Your task to perform on an android device: Open Google Chrome and click the shortcut for Amazon.com Image 0: 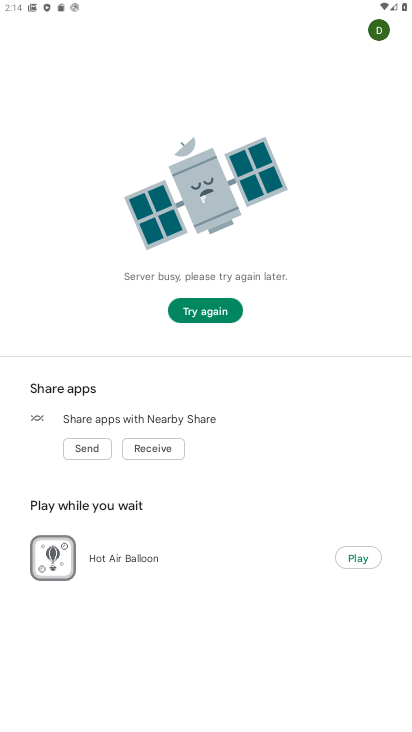
Step 0: press home button
Your task to perform on an android device: Open Google Chrome and click the shortcut for Amazon.com Image 1: 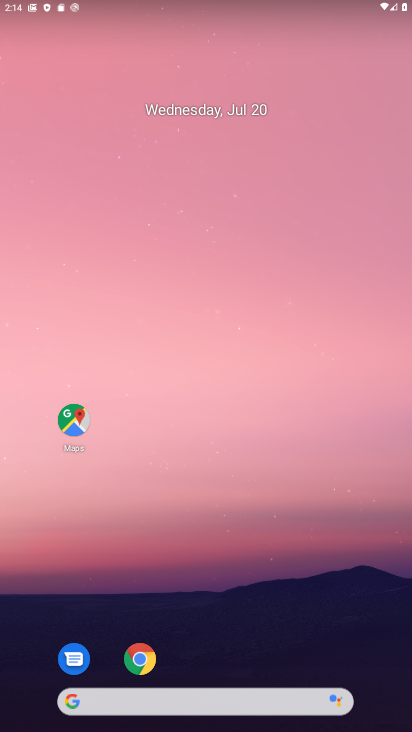
Step 1: drag from (353, 630) to (318, 1)
Your task to perform on an android device: Open Google Chrome and click the shortcut for Amazon.com Image 2: 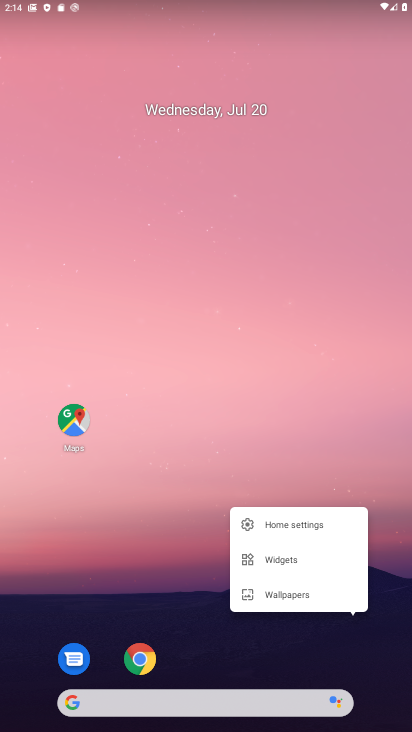
Step 2: drag from (190, 675) to (197, 188)
Your task to perform on an android device: Open Google Chrome and click the shortcut for Amazon.com Image 3: 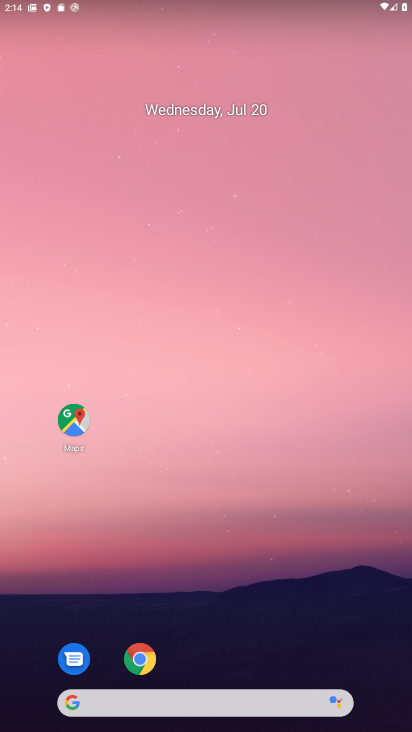
Step 3: click (146, 654)
Your task to perform on an android device: Open Google Chrome and click the shortcut for Amazon.com Image 4: 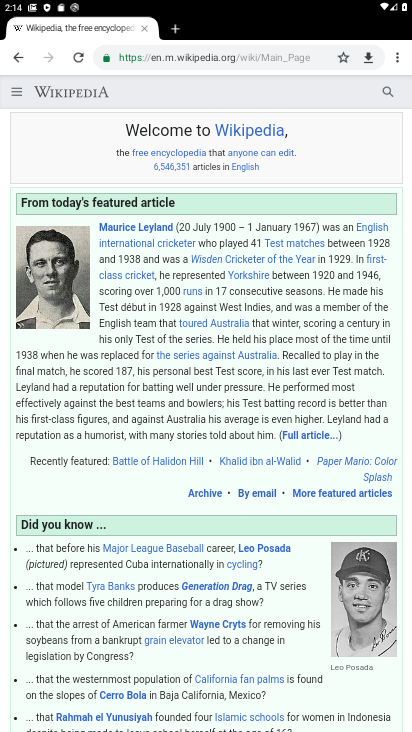
Step 4: click (170, 30)
Your task to perform on an android device: Open Google Chrome and click the shortcut for Amazon.com Image 5: 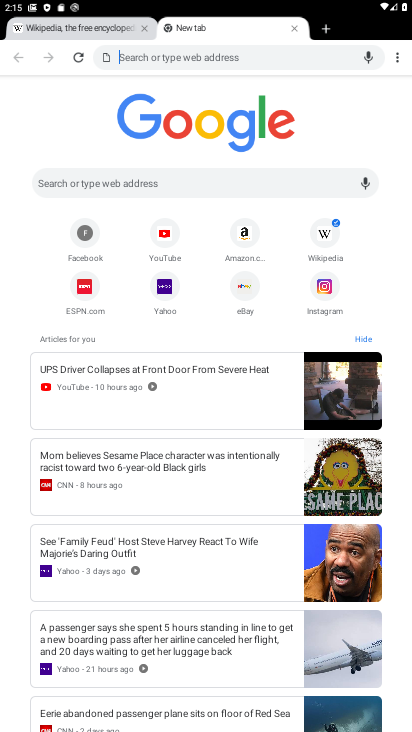
Step 5: click (237, 238)
Your task to perform on an android device: Open Google Chrome and click the shortcut for Amazon.com Image 6: 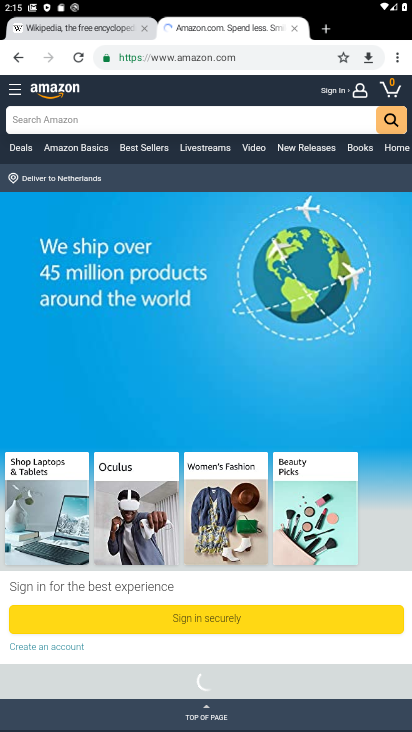
Step 6: task complete